Your task to perform on an android device: Go to eBay Image 0: 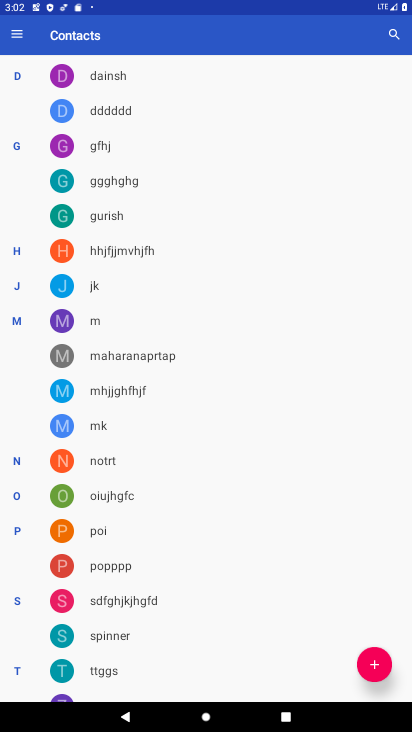
Step 0: press home button
Your task to perform on an android device: Go to eBay Image 1: 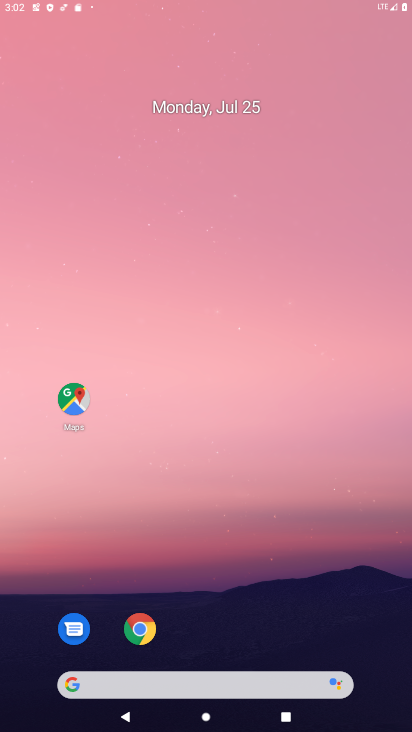
Step 1: drag from (144, 653) to (178, 45)
Your task to perform on an android device: Go to eBay Image 2: 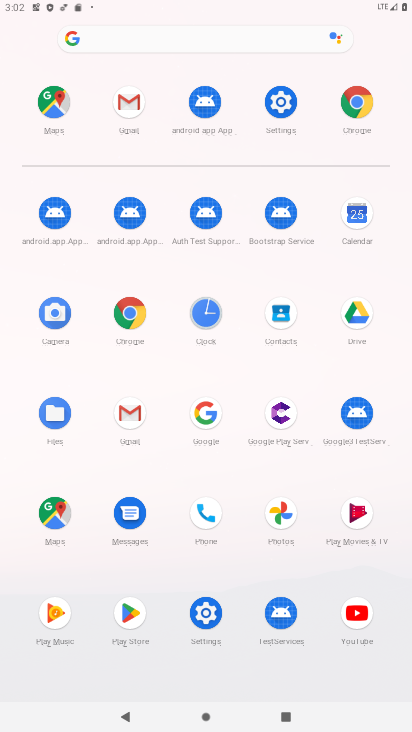
Step 2: click (139, 40)
Your task to perform on an android device: Go to eBay Image 3: 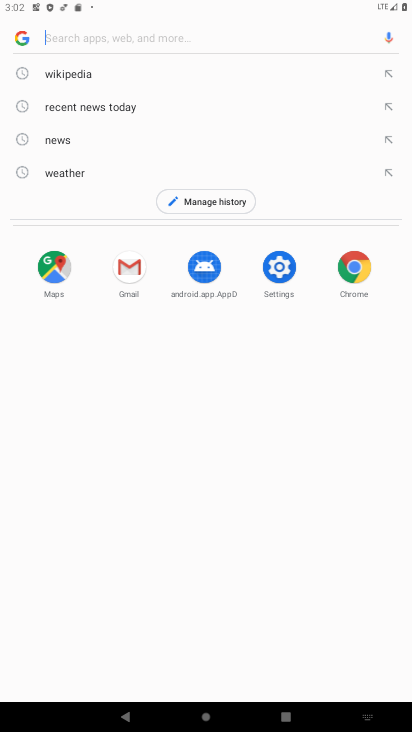
Step 3: type "eBay"
Your task to perform on an android device: Go to eBay Image 4: 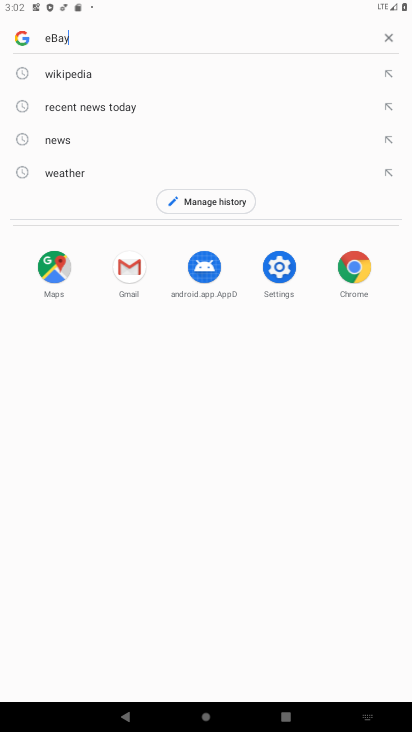
Step 4: type ""
Your task to perform on an android device: Go to eBay Image 5: 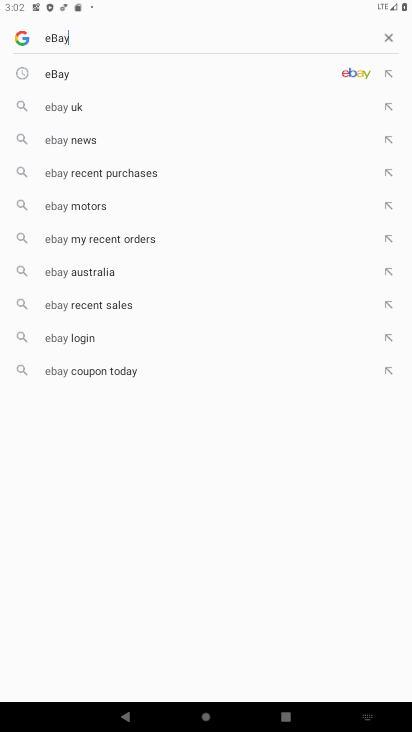
Step 5: click (288, 72)
Your task to perform on an android device: Go to eBay Image 6: 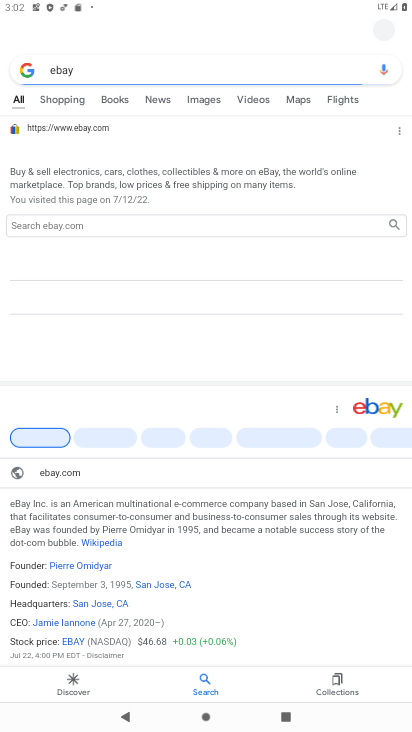
Step 6: drag from (228, 520) to (271, 268)
Your task to perform on an android device: Go to eBay Image 7: 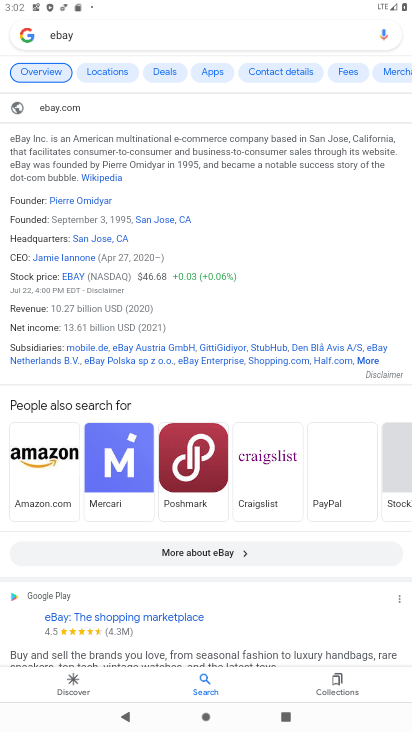
Step 7: drag from (284, 204) to (298, 586)
Your task to perform on an android device: Go to eBay Image 8: 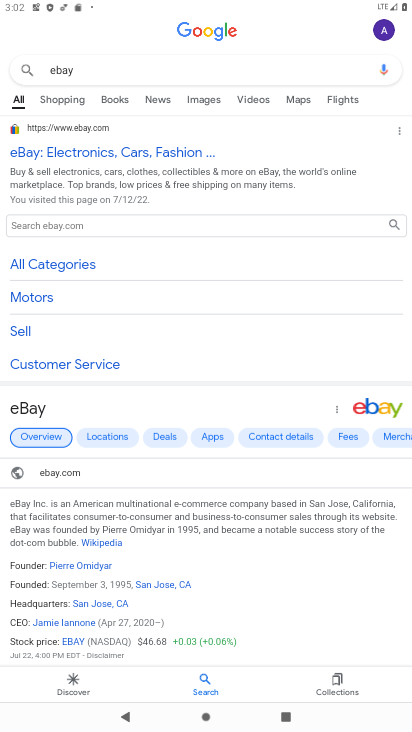
Step 8: click (62, 152)
Your task to perform on an android device: Go to eBay Image 9: 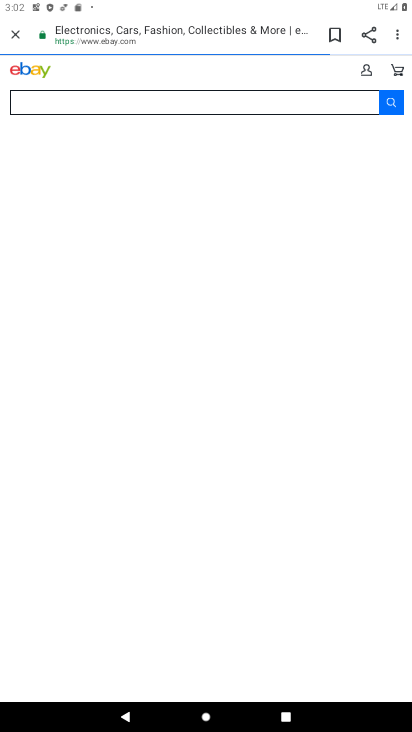
Step 9: task complete